Your task to perform on an android device: turn on bluetooth scan Image 0: 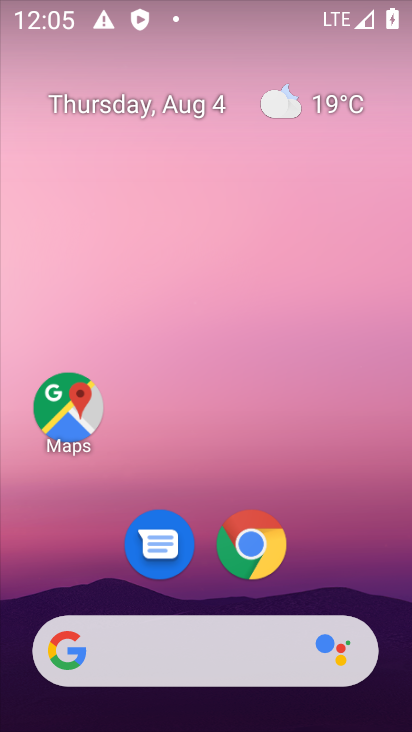
Step 0: drag from (373, 706) to (329, 221)
Your task to perform on an android device: turn on bluetooth scan Image 1: 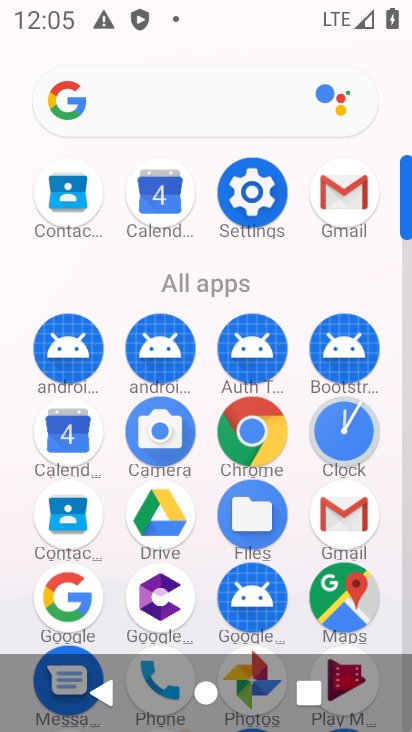
Step 1: click (251, 211)
Your task to perform on an android device: turn on bluetooth scan Image 2: 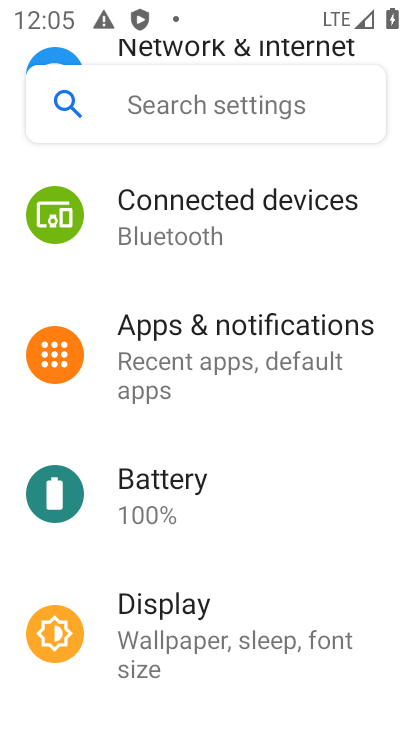
Step 2: drag from (227, 678) to (347, 288)
Your task to perform on an android device: turn on bluetooth scan Image 3: 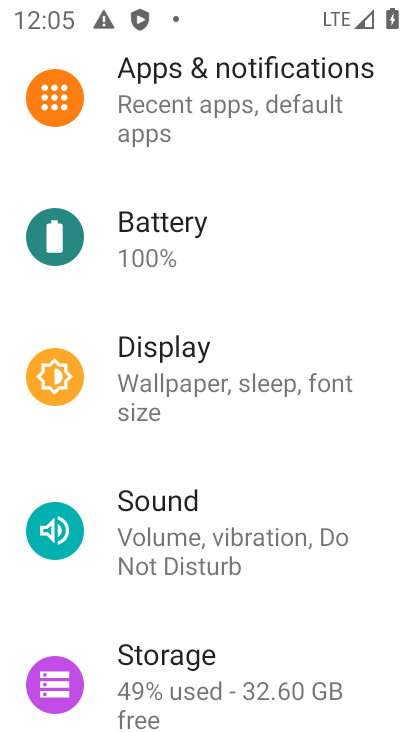
Step 3: drag from (203, 659) to (232, 291)
Your task to perform on an android device: turn on bluetooth scan Image 4: 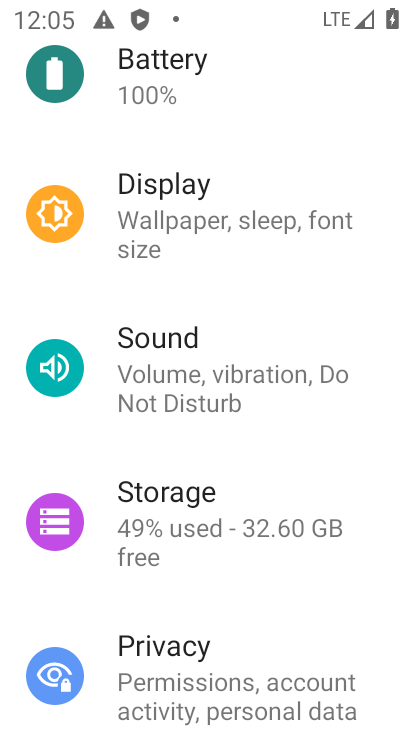
Step 4: drag from (193, 486) to (209, 273)
Your task to perform on an android device: turn on bluetooth scan Image 5: 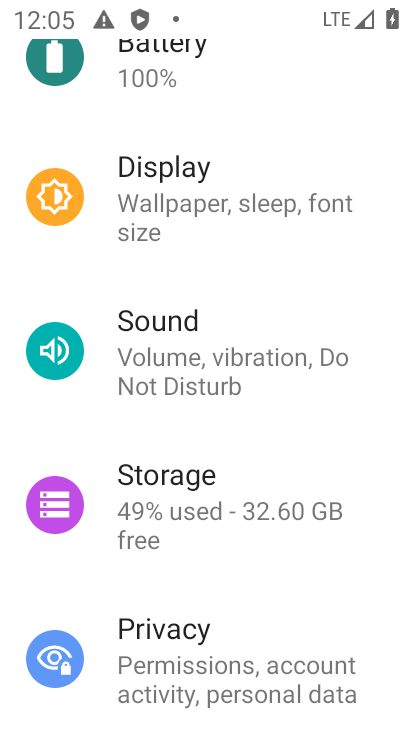
Step 5: drag from (175, 686) to (202, 290)
Your task to perform on an android device: turn on bluetooth scan Image 6: 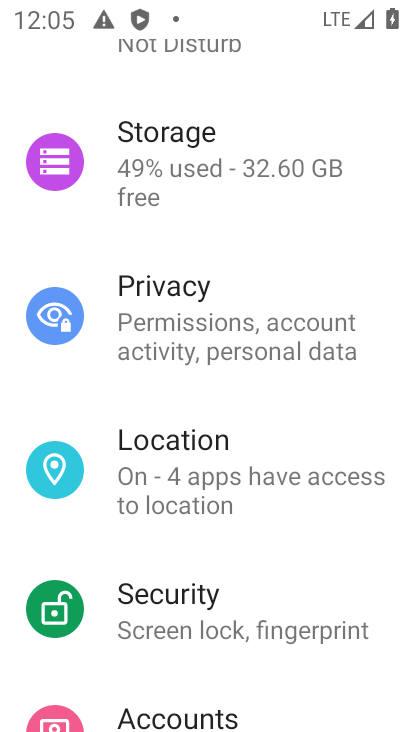
Step 6: click (171, 465)
Your task to perform on an android device: turn on bluetooth scan Image 7: 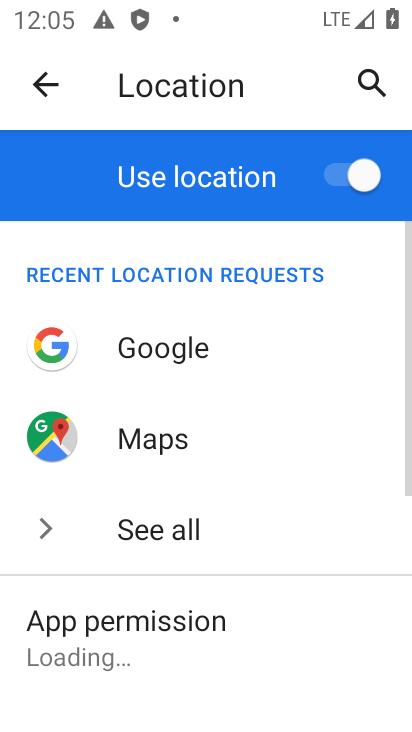
Step 7: drag from (193, 603) to (218, 315)
Your task to perform on an android device: turn on bluetooth scan Image 8: 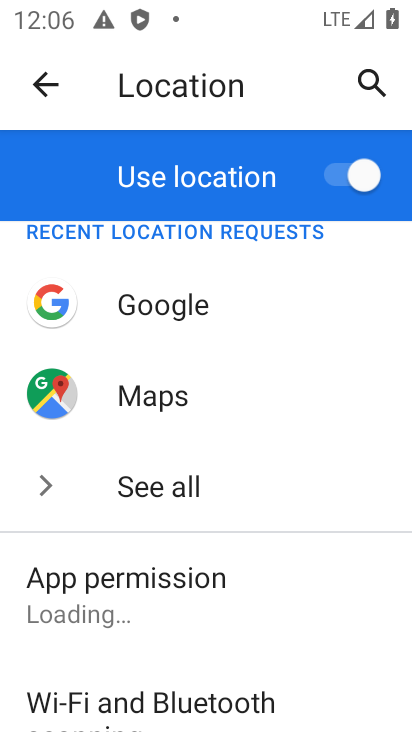
Step 8: click (161, 707)
Your task to perform on an android device: turn on bluetooth scan Image 9: 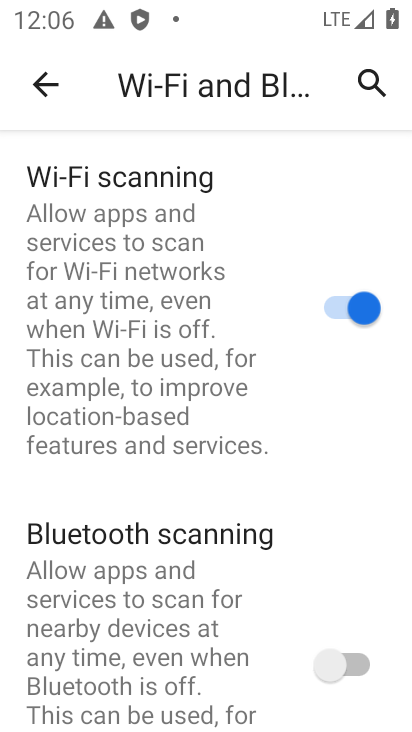
Step 9: click (345, 661)
Your task to perform on an android device: turn on bluetooth scan Image 10: 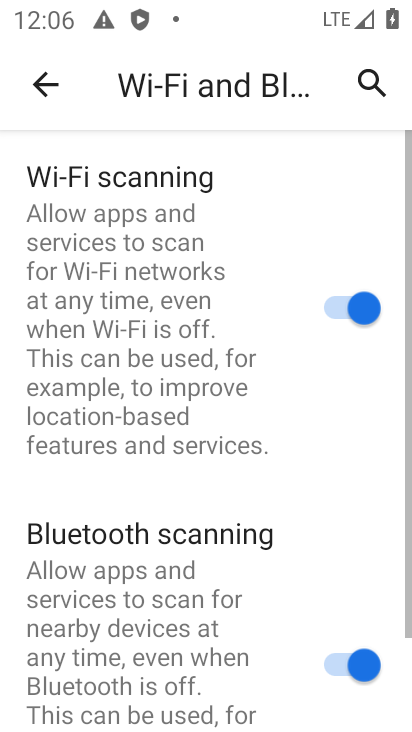
Step 10: task complete